Your task to perform on an android device: install app "YouTube Kids" Image 0: 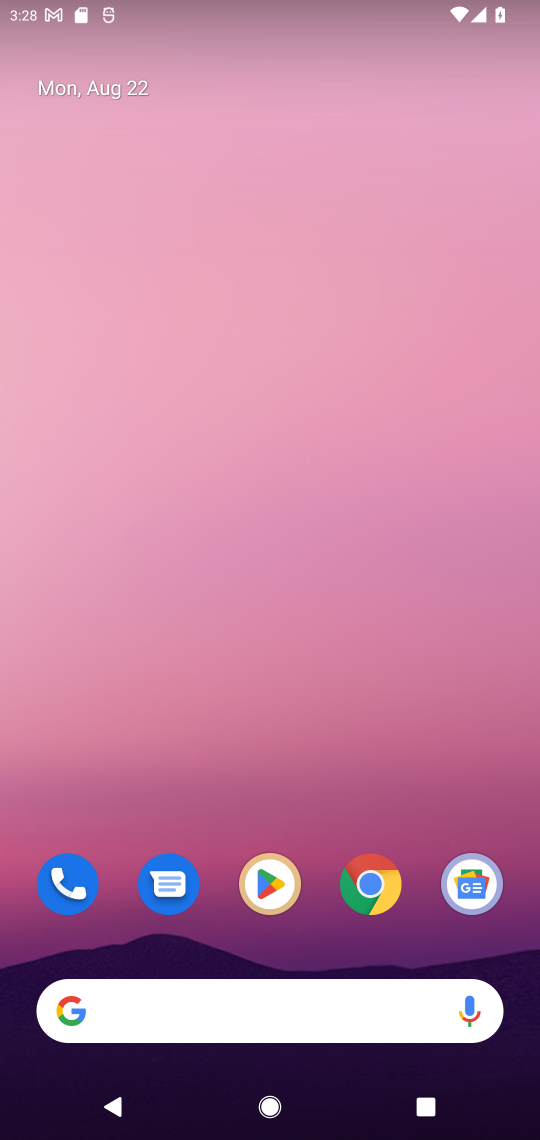
Step 0: click (268, 889)
Your task to perform on an android device: install app "YouTube Kids" Image 1: 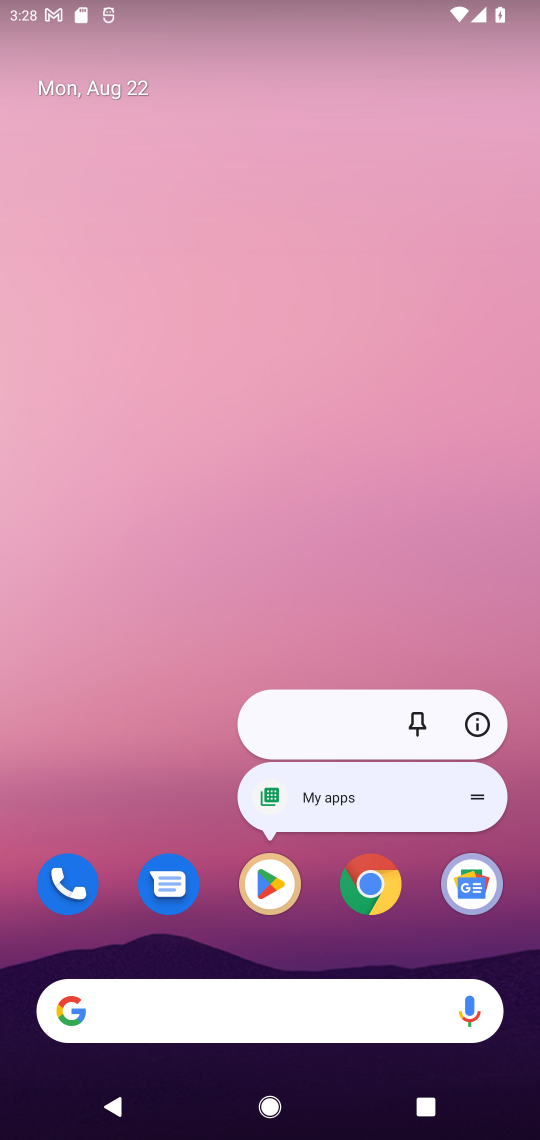
Step 1: click (270, 889)
Your task to perform on an android device: install app "YouTube Kids" Image 2: 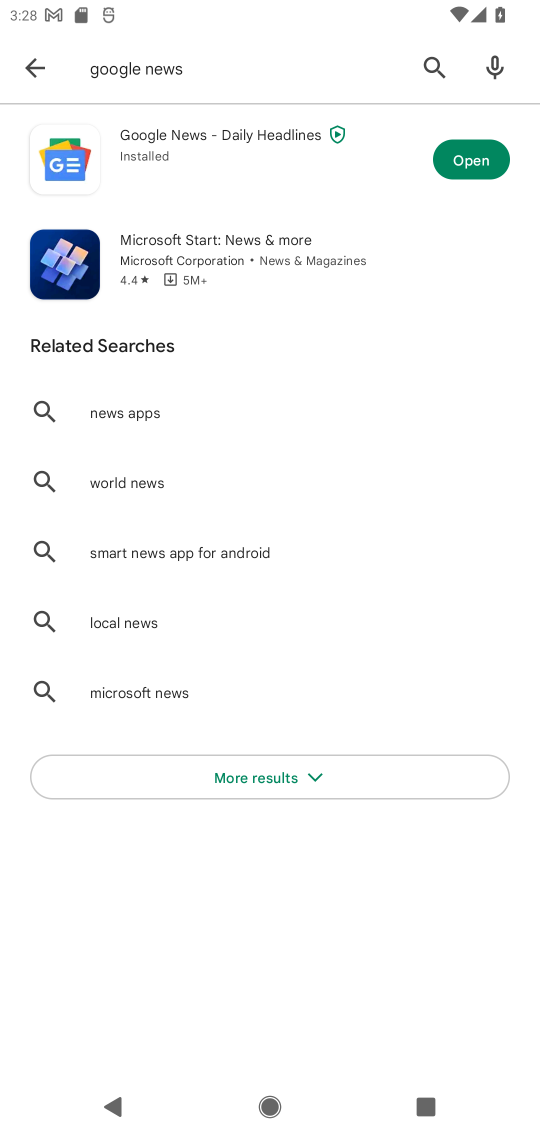
Step 2: click (199, 75)
Your task to perform on an android device: install app "YouTube Kids" Image 3: 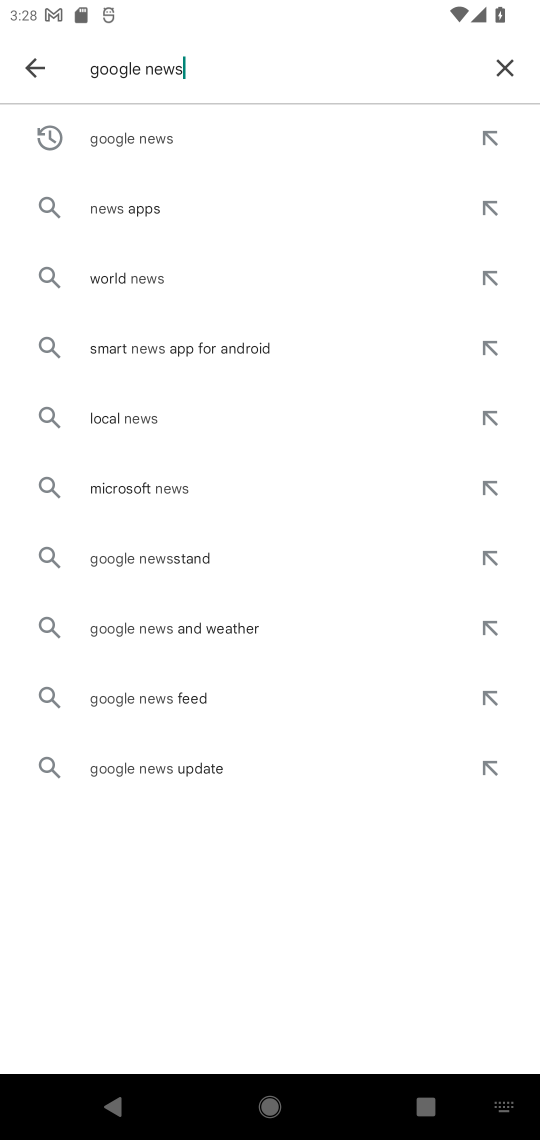
Step 3: click (506, 75)
Your task to perform on an android device: install app "YouTube Kids" Image 4: 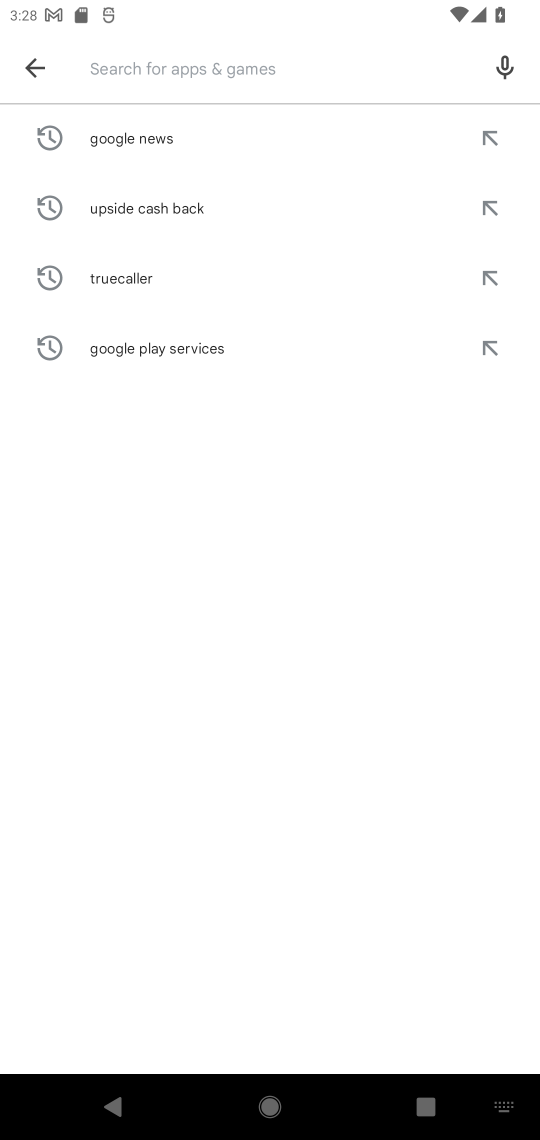
Step 4: type "youtube kids"
Your task to perform on an android device: install app "YouTube Kids" Image 5: 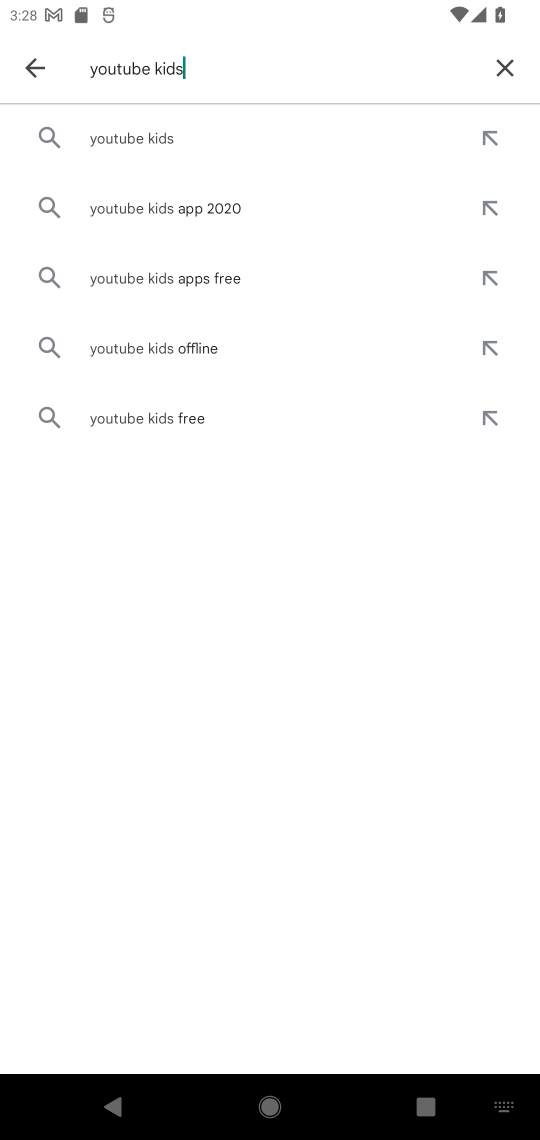
Step 5: click (177, 139)
Your task to perform on an android device: install app "YouTube Kids" Image 6: 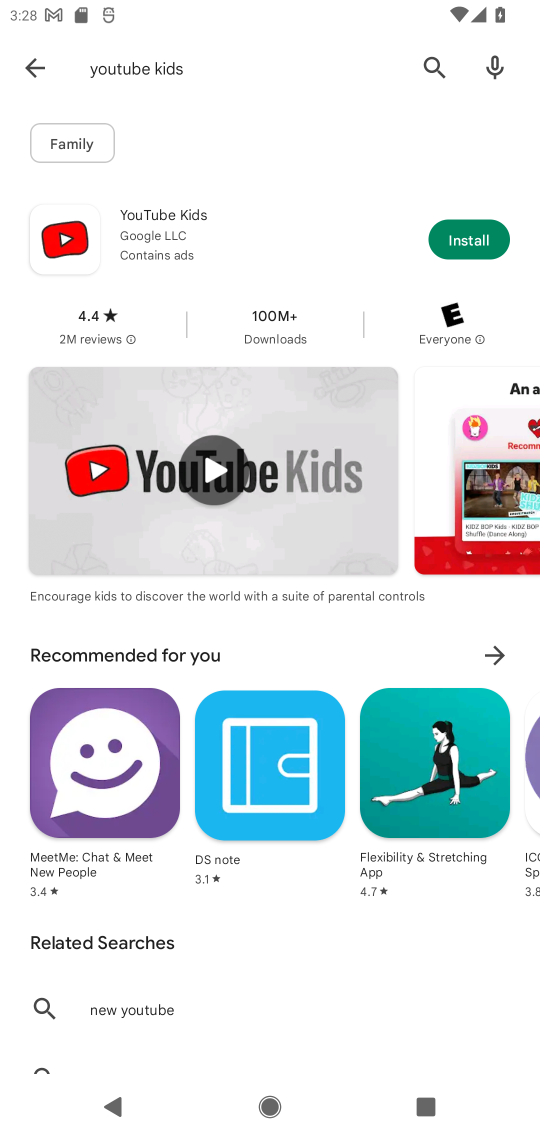
Step 6: click (473, 238)
Your task to perform on an android device: install app "YouTube Kids" Image 7: 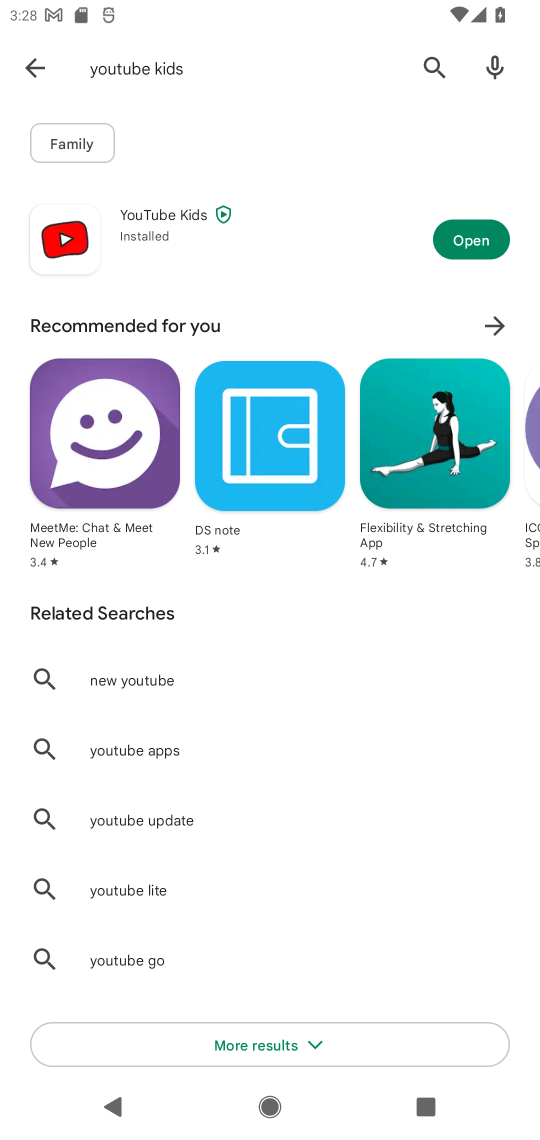
Step 7: task complete